Your task to perform on an android device: Turn on the flashlight Image 0: 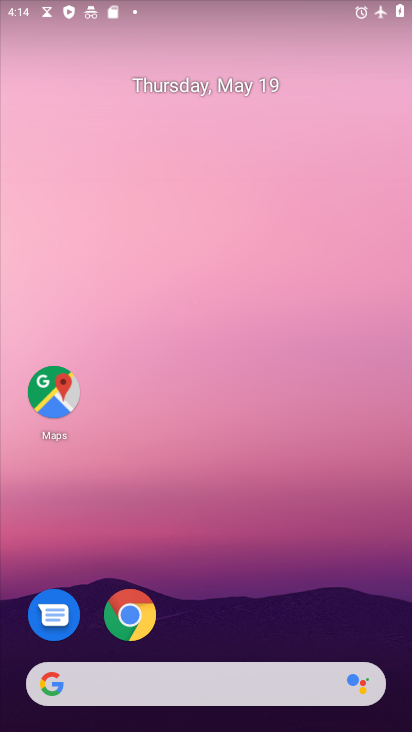
Step 0: drag from (284, 681) to (155, 151)
Your task to perform on an android device: Turn on the flashlight Image 1: 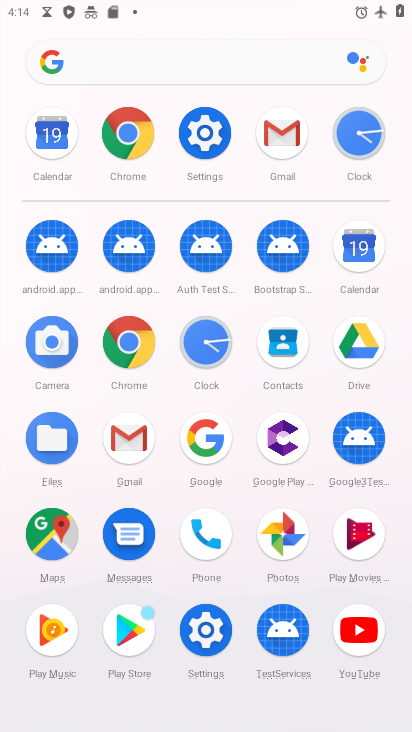
Step 1: task complete